Your task to perform on an android device: Open calendar and show me the first week of next month Image 0: 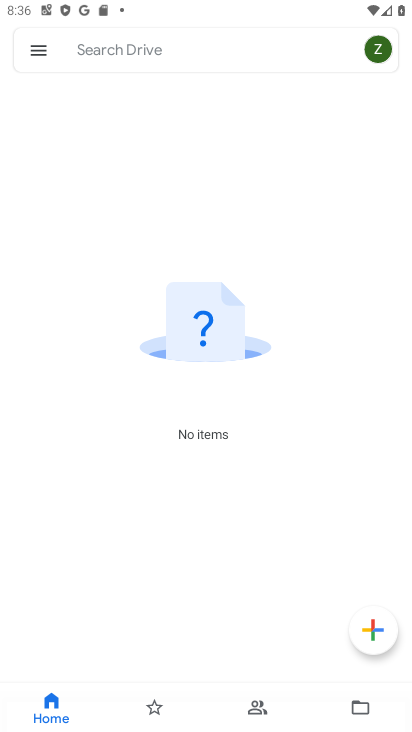
Step 0: press home button
Your task to perform on an android device: Open calendar and show me the first week of next month Image 1: 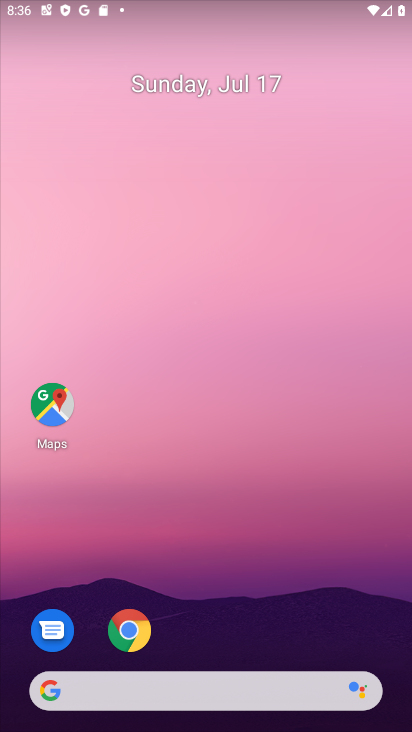
Step 1: drag from (184, 659) to (159, 220)
Your task to perform on an android device: Open calendar and show me the first week of next month Image 2: 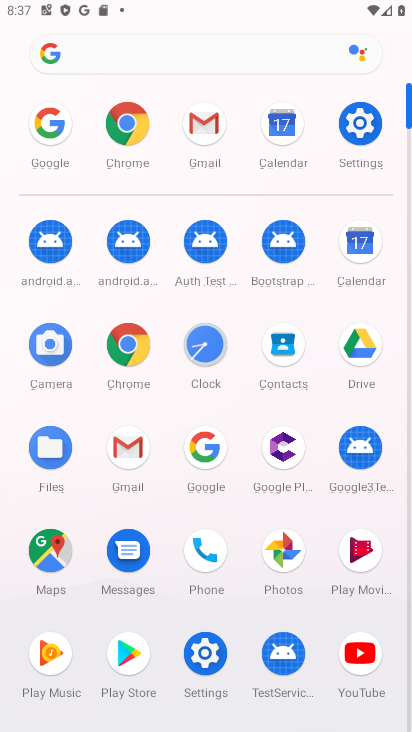
Step 2: click (355, 255)
Your task to perform on an android device: Open calendar and show me the first week of next month Image 3: 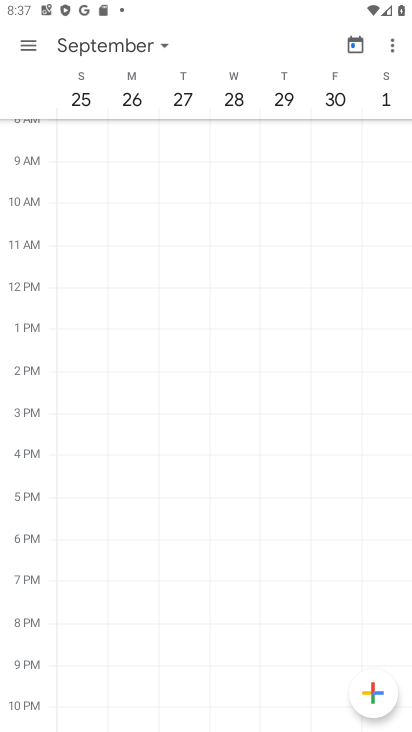
Step 3: click (126, 50)
Your task to perform on an android device: Open calendar and show me the first week of next month Image 4: 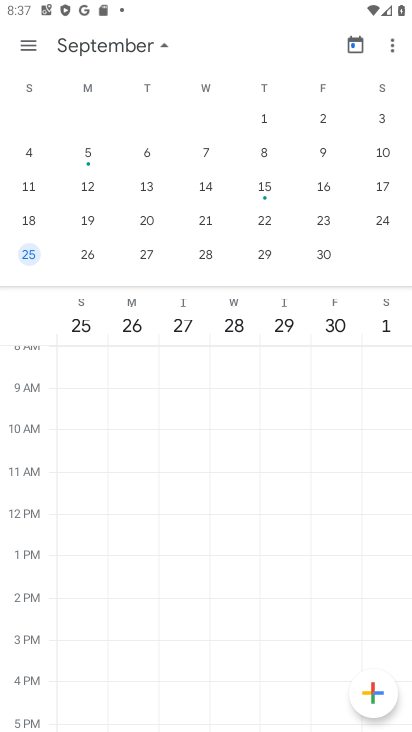
Step 4: click (38, 49)
Your task to perform on an android device: Open calendar and show me the first week of next month Image 5: 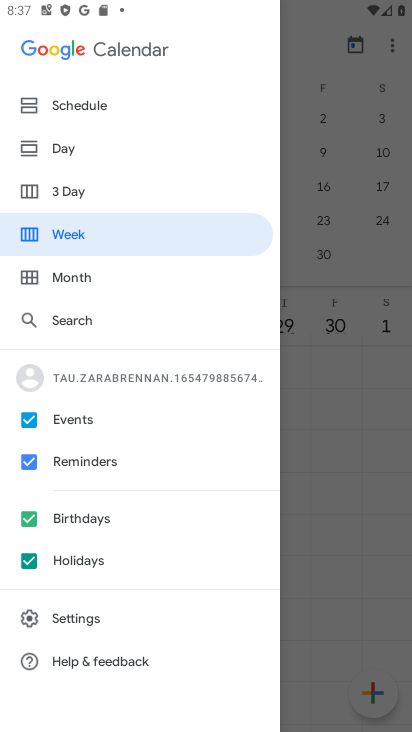
Step 5: click (60, 241)
Your task to perform on an android device: Open calendar and show me the first week of next month Image 6: 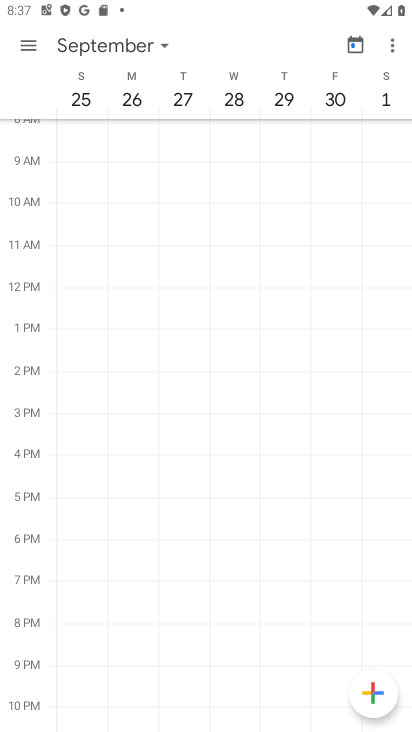
Step 6: click (82, 42)
Your task to perform on an android device: Open calendar and show me the first week of next month Image 7: 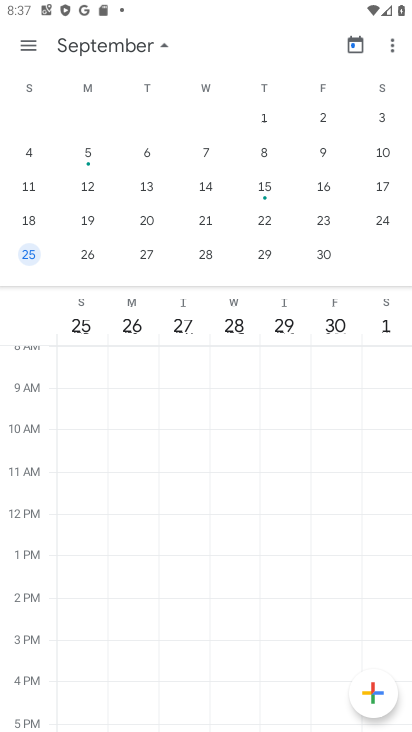
Step 7: drag from (42, 154) to (319, 128)
Your task to perform on an android device: Open calendar and show me the first week of next month Image 8: 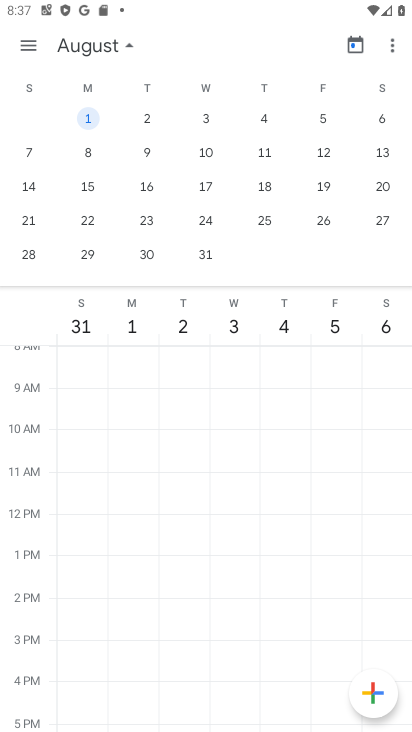
Step 8: click (91, 116)
Your task to perform on an android device: Open calendar and show me the first week of next month Image 9: 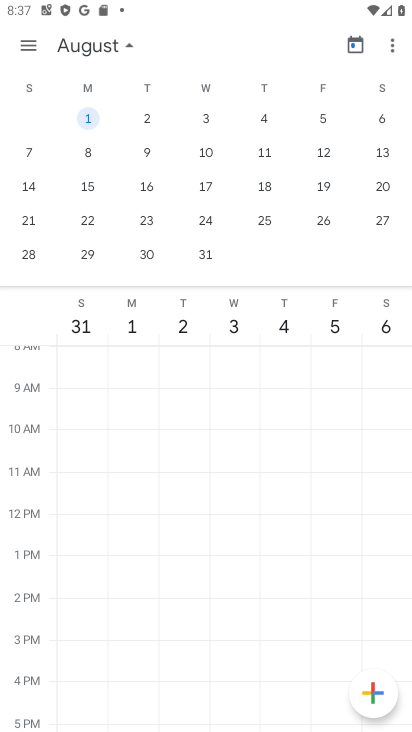
Step 9: click (91, 116)
Your task to perform on an android device: Open calendar and show me the first week of next month Image 10: 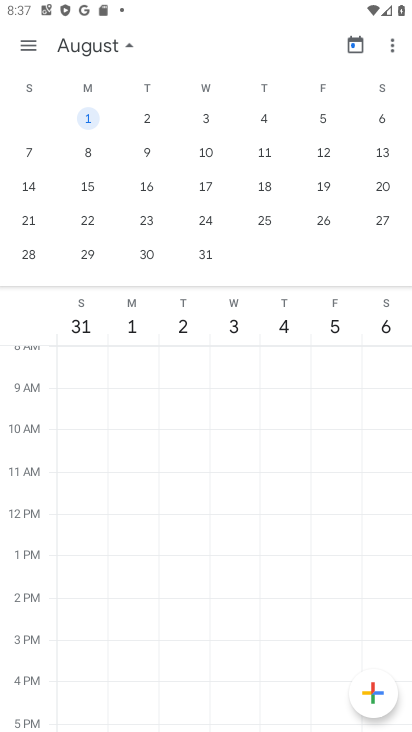
Step 10: click (89, 122)
Your task to perform on an android device: Open calendar and show me the first week of next month Image 11: 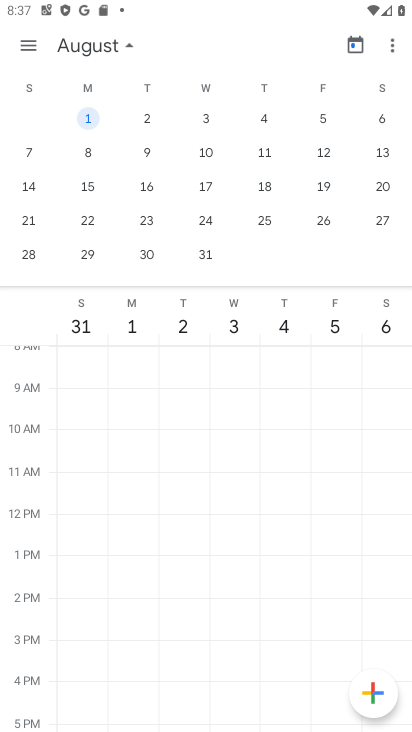
Step 11: click (89, 122)
Your task to perform on an android device: Open calendar and show me the first week of next month Image 12: 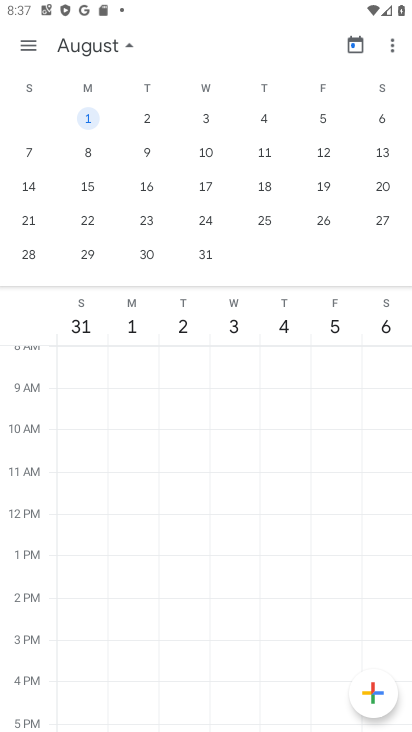
Step 12: click (89, 122)
Your task to perform on an android device: Open calendar and show me the first week of next month Image 13: 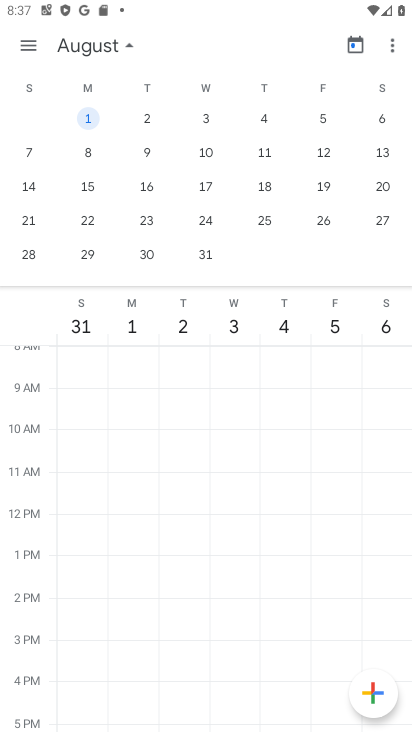
Step 13: click (89, 122)
Your task to perform on an android device: Open calendar and show me the first week of next month Image 14: 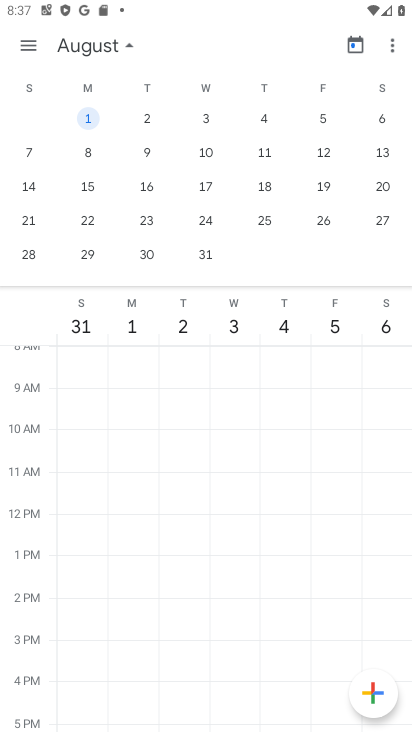
Step 14: click (89, 122)
Your task to perform on an android device: Open calendar and show me the first week of next month Image 15: 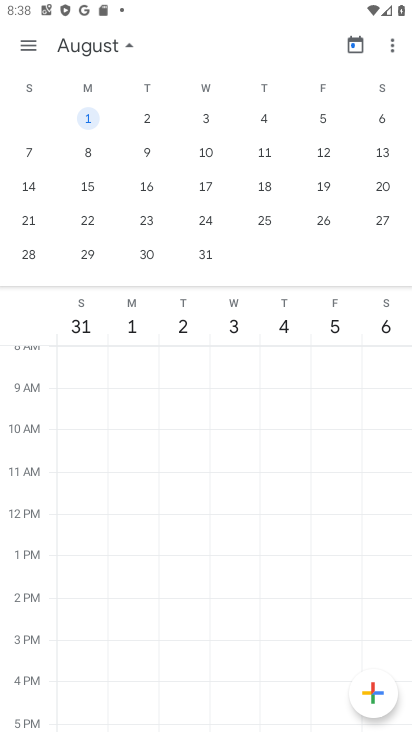
Step 15: task complete